Your task to perform on an android device: Set the phone to "Do not disturb". Image 0: 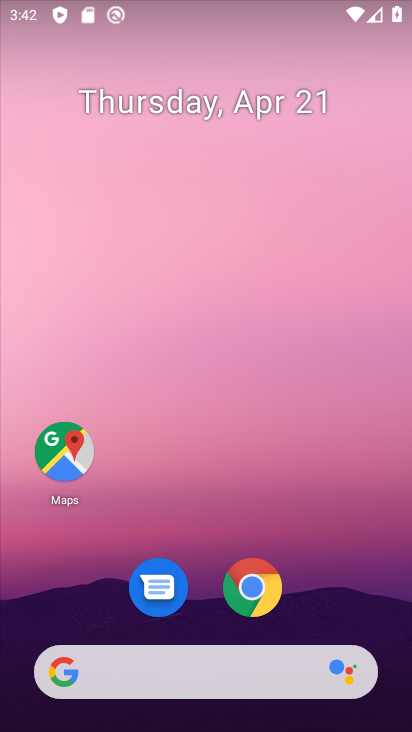
Step 0: drag from (378, 636) to (396, 32)
Your task to perform on an android device: Set the phone to "Do not disturb". Image 1: 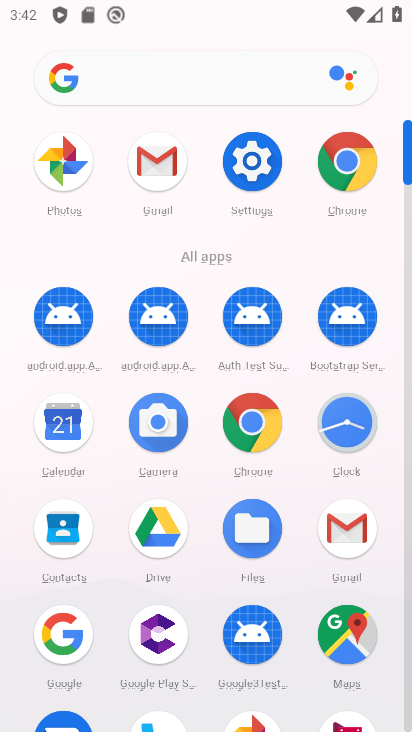
Step 1: click (249, 162)
Your task to perform on an android device: Set the phone to "Do not disturb". Image 2: 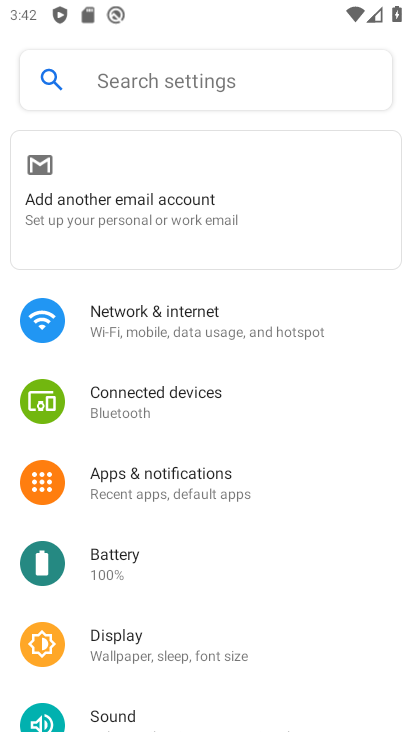
Step 2: click (104, 717)
Your task to perform on an android device: Set the phone to "Do not disturb". Image 3: 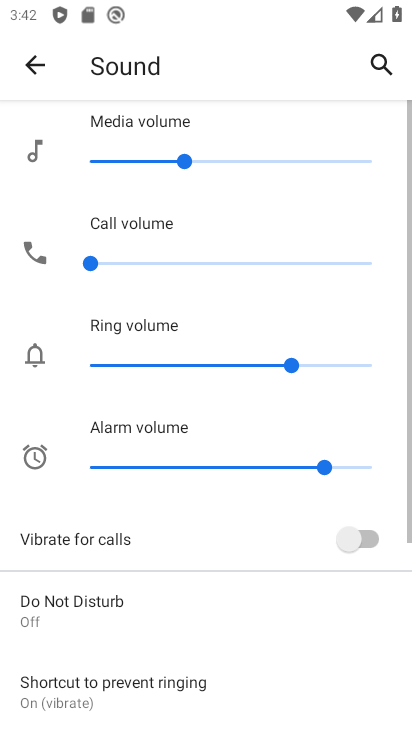
Step 3: click (33, 605)
Your task to perform on an android device: Set the phone to "Do not disturb". Image 4: 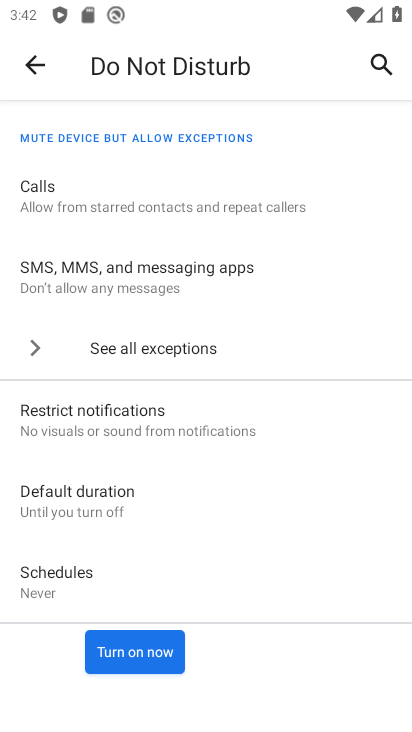
Step 4: click (150, 651)
Your task to perform on an android device: Set the phone to "Do not disturb". Image 5: 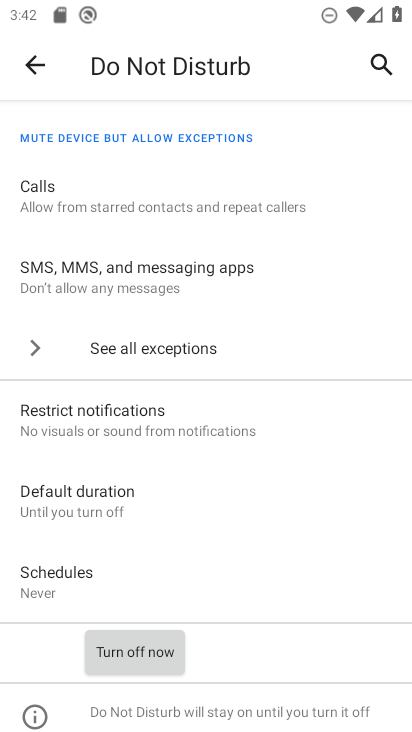
Step 5: task complete